Your task to perform on an android device: Clear all items from cart on walmart.com. Add "amazon basics triple a" to the cart on walmart.com, then select checkout. Image 0: 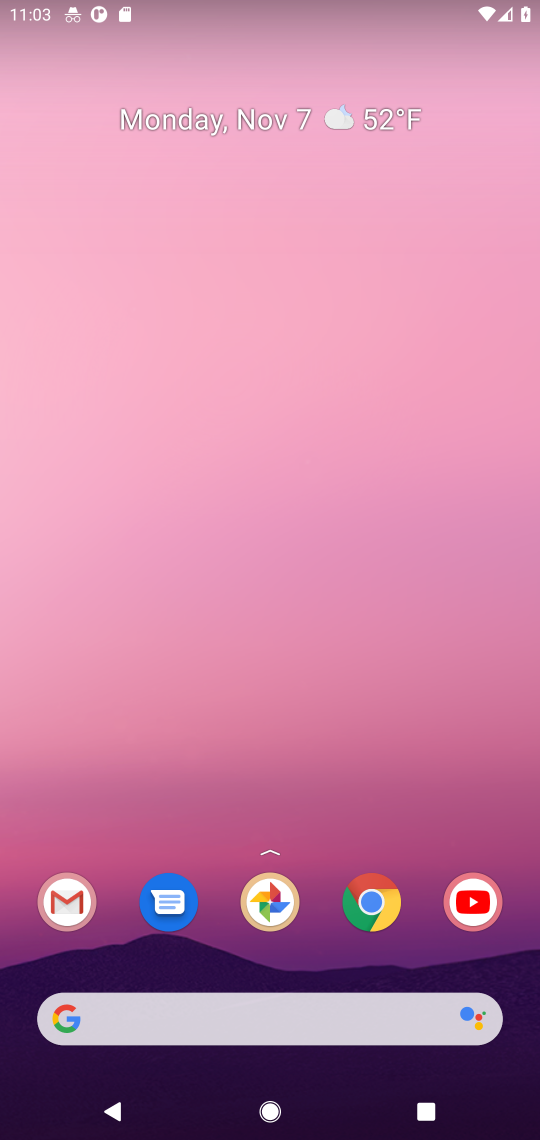
Step 0: click (380, 909)
Your task to perform on an android device: Clear all items from cart on walmart.com. Add "amazon basics triple a" to the cart on walmart.com, then select checkout. Image 1: 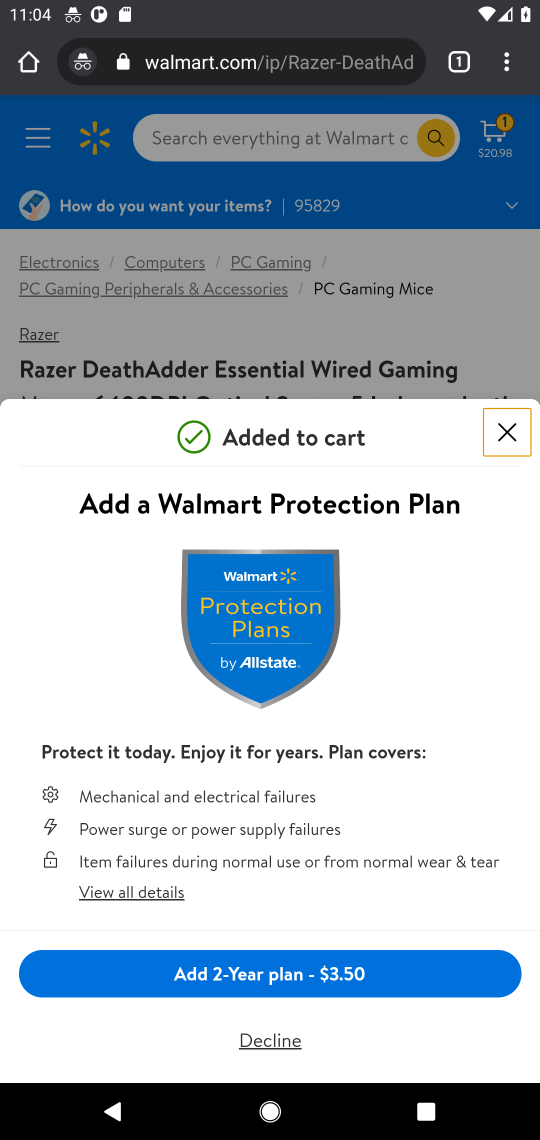
Step 1: click (508, 442)
Your task to perform on an android device: Clear all items from cart on walmart.com. Add "amazon basics triple a" to the cart on walmart.com, then select checkout. Image 2: 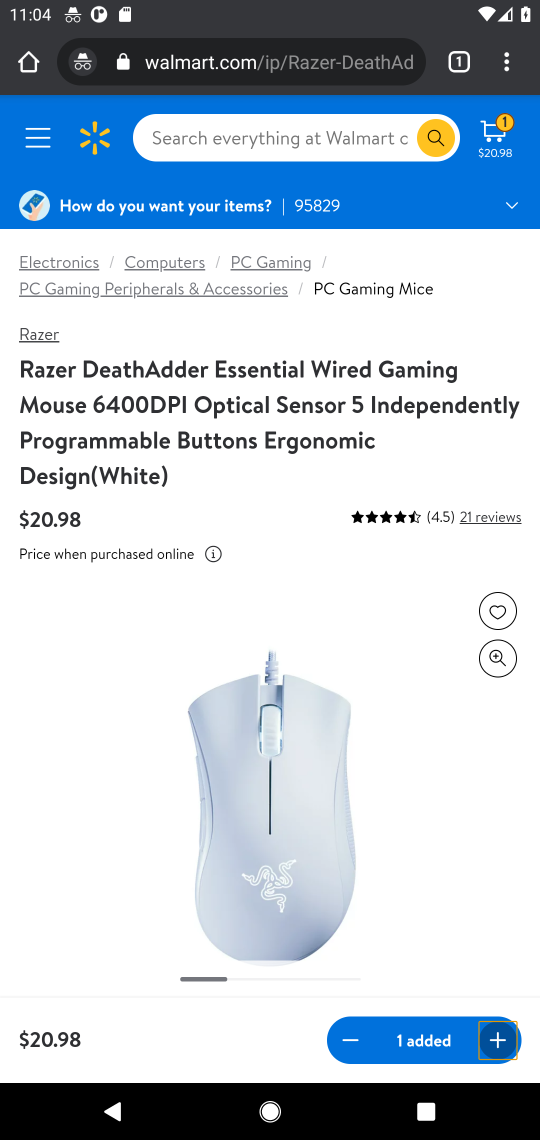
Step 2: click (504, 149)
Your task to perform on an android device: Clear all items from cart on walmart.com. Add "amazon basics triple a" to the cart on walmart.com, then select checkout. Image 3: 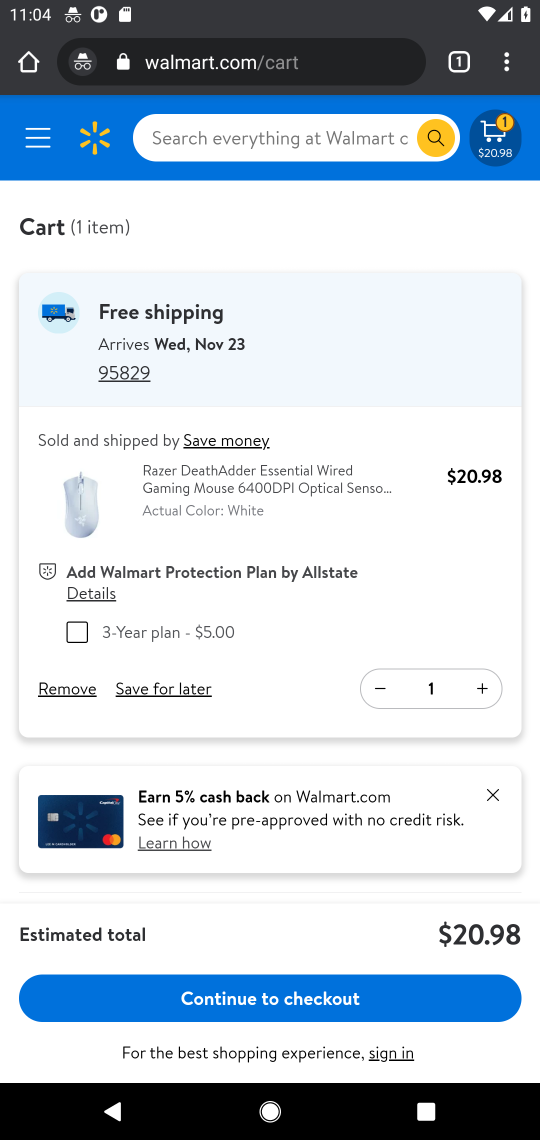
Step 3: click (69, 693)
Your task to perform on an android device: Clear all items from cart on walmart.com. Add "amazon basics triple a" to the cart on walmart.com, then select checkout. Image 4: 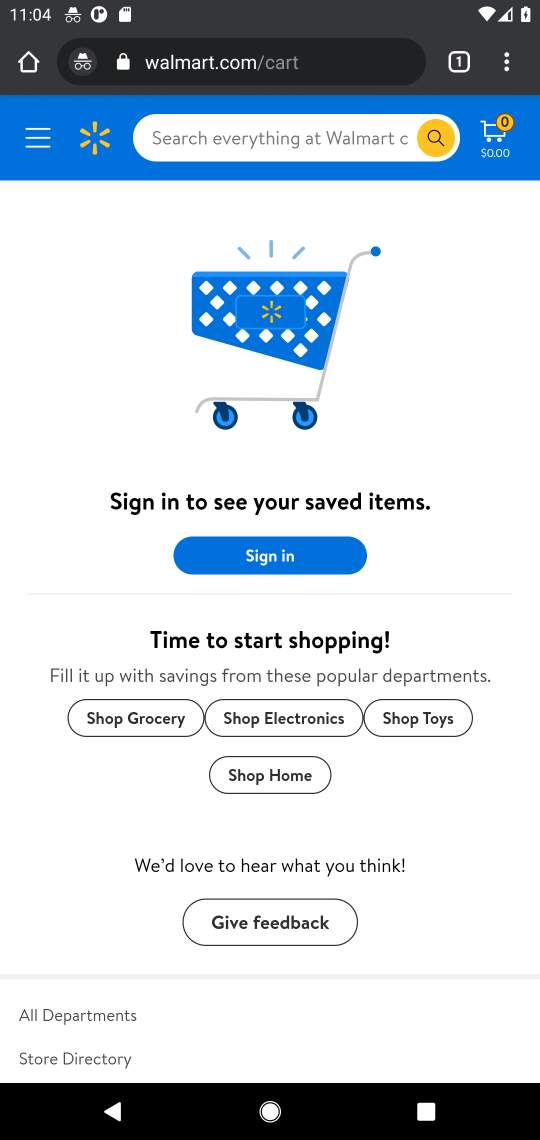
Step 4: click (277, 146)
Your task to perform on an android device: Clear all items from cart on walmart.com. Add "amazon basics triple a" to the cart on walmart.com, then select checkout. Image 5: 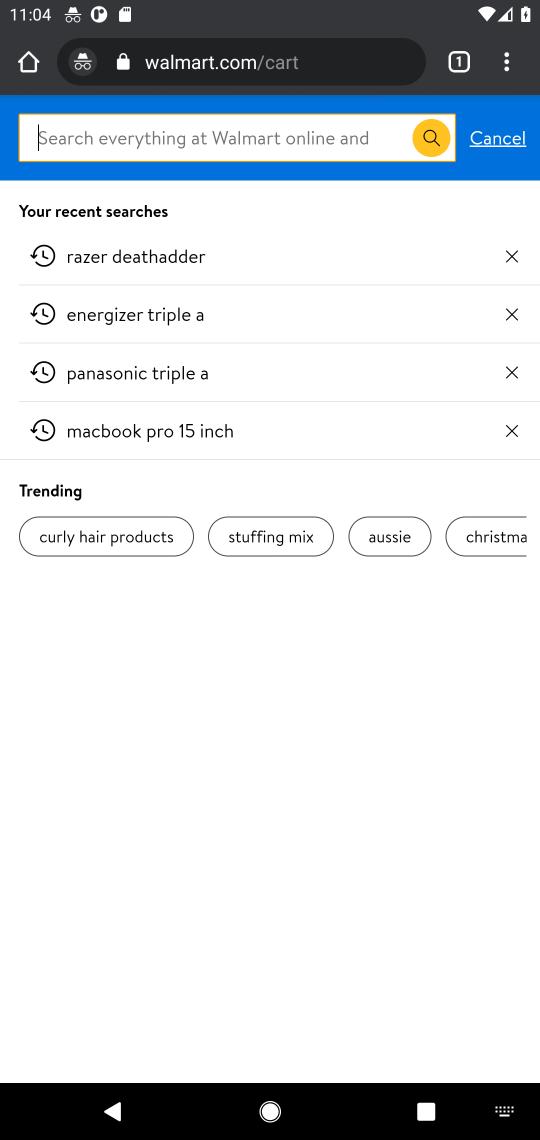
Step 5: type "amazon basics triple a"
Your task to perform on an android device: Clear all items from cart on walmart.com. Add "amazon basics triple a" to the cart on walmart.com, then select checkout. Image 6: 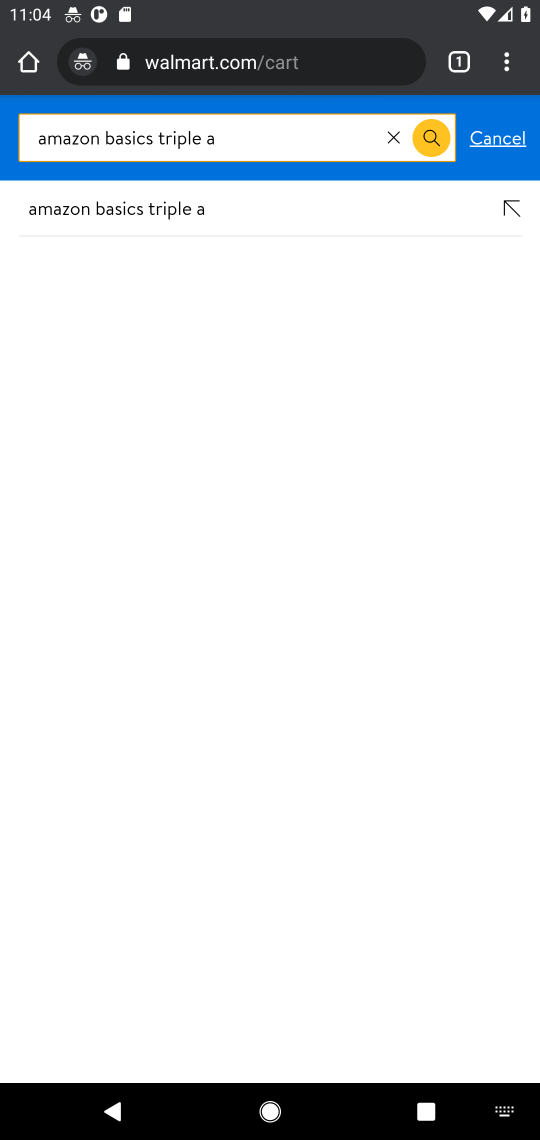
Step 6: click (87, 219)
Your task to perform on an android device: Clear all items from cart on walmart.com. Add "amazon basics triple a" to the cart on walmart.com, then select checkout. Image 7: 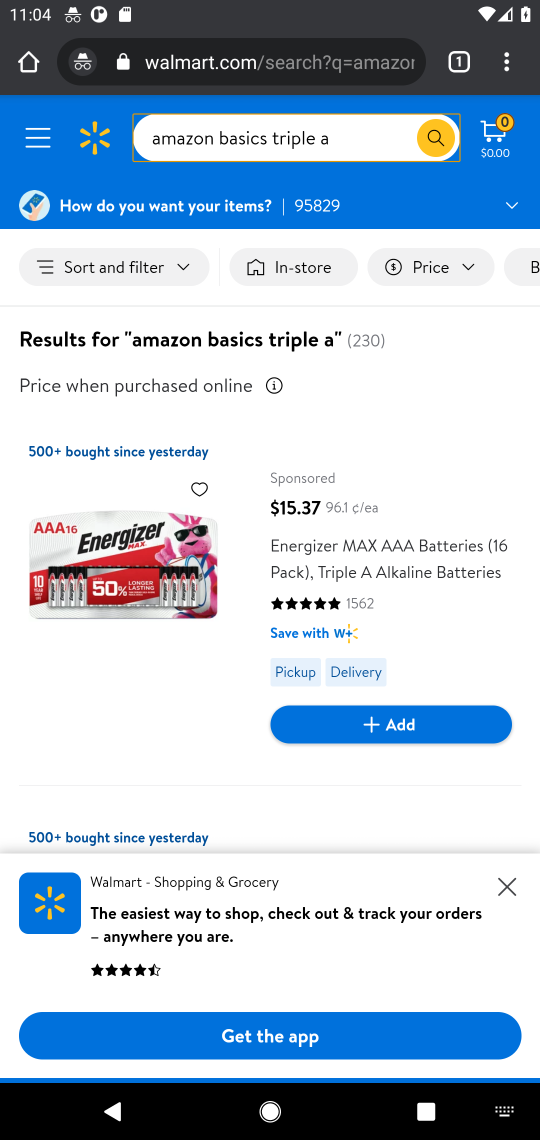
Step 7: task complete